Your task to perform on an android device: What's the weather? Image 0: 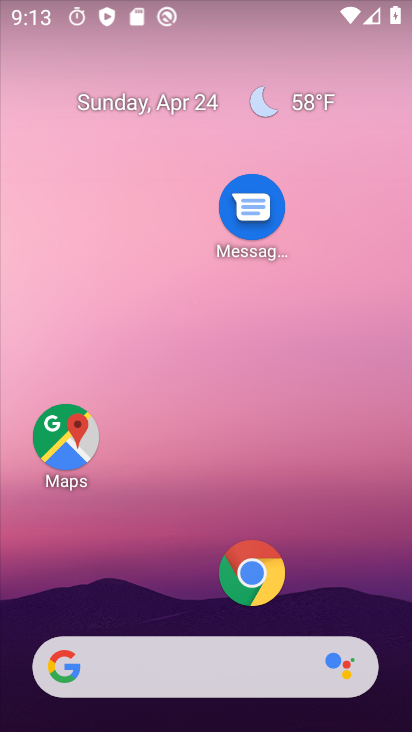
Step 0: click (300, 102)
Your task to perform on an android device: What's the weather? Image 1: 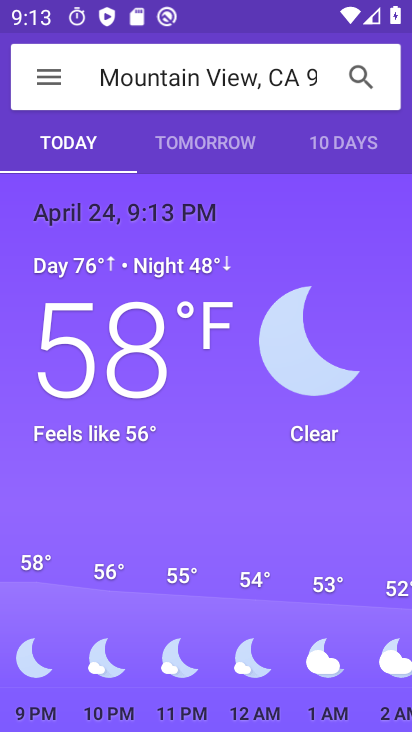
Step 1: task complete